Your task to perform on an android device: turn off smart reply in the gmail app Image 0: 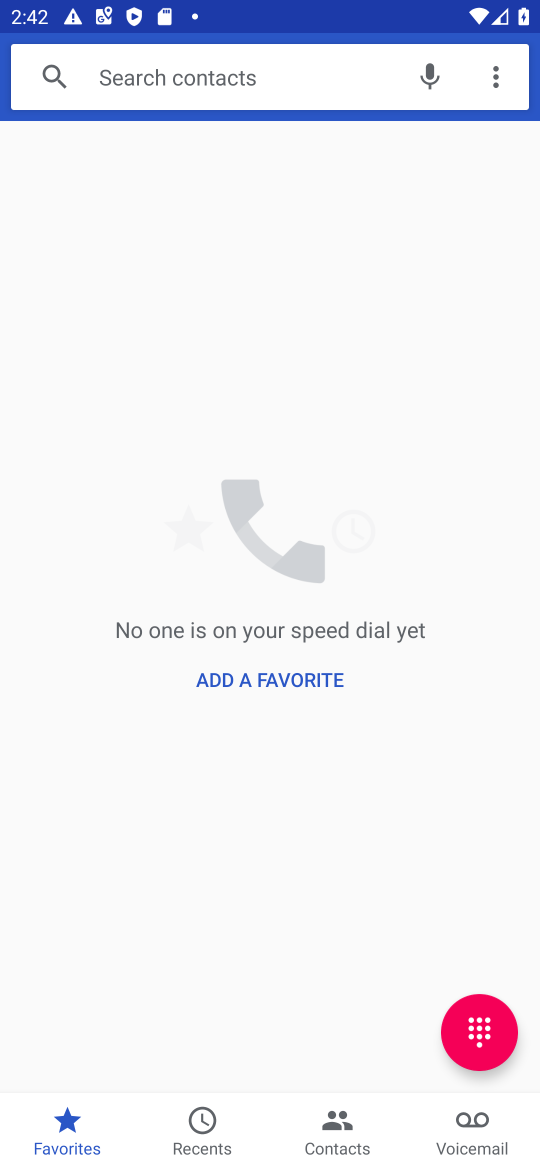
Step 0: press home button
Your task to perform on an android device: turn off smart reply in the gmail app Image 1: 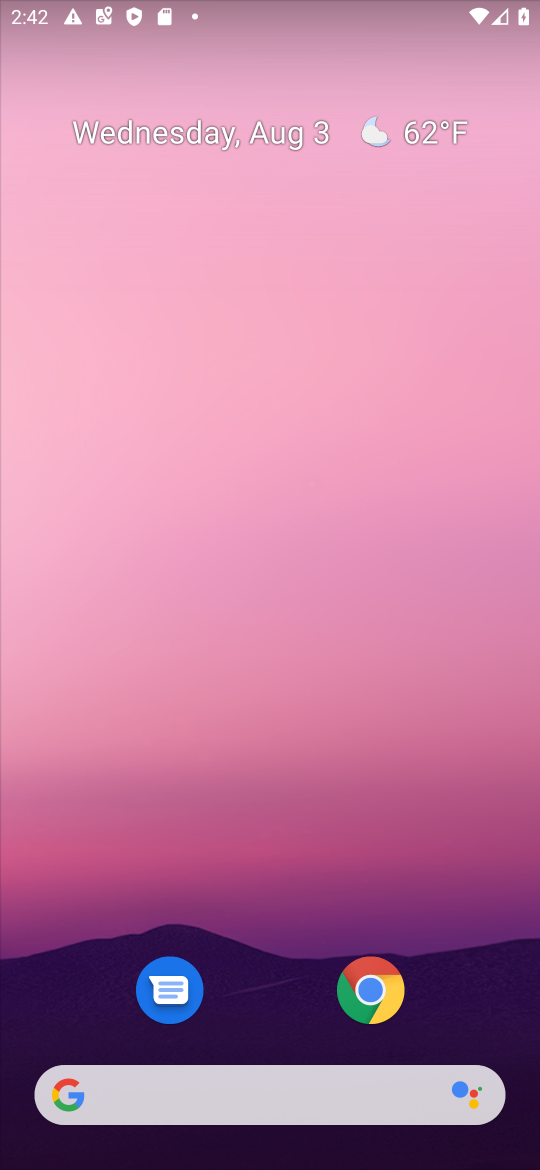
Step 1: drag from (183, 862) to (74, 348)
Your task to perform on an android device: turn off smart reply in the gmail app Image 2: 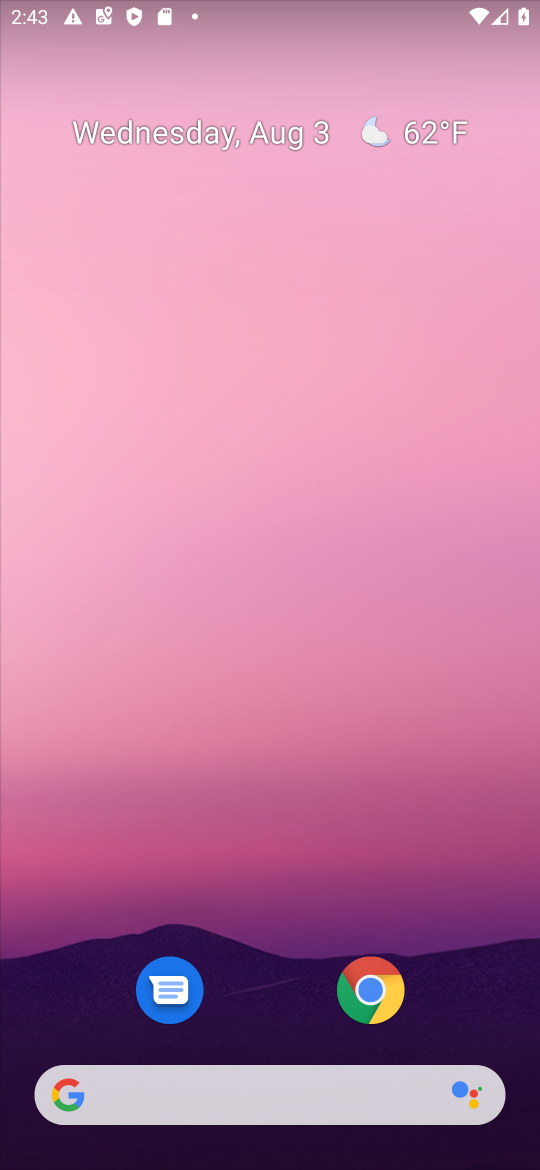
Step 2: drag from (287, 901) to (277, 333)
Your task to perform on an android device: turn off smart reply in the gmail app Image 3: 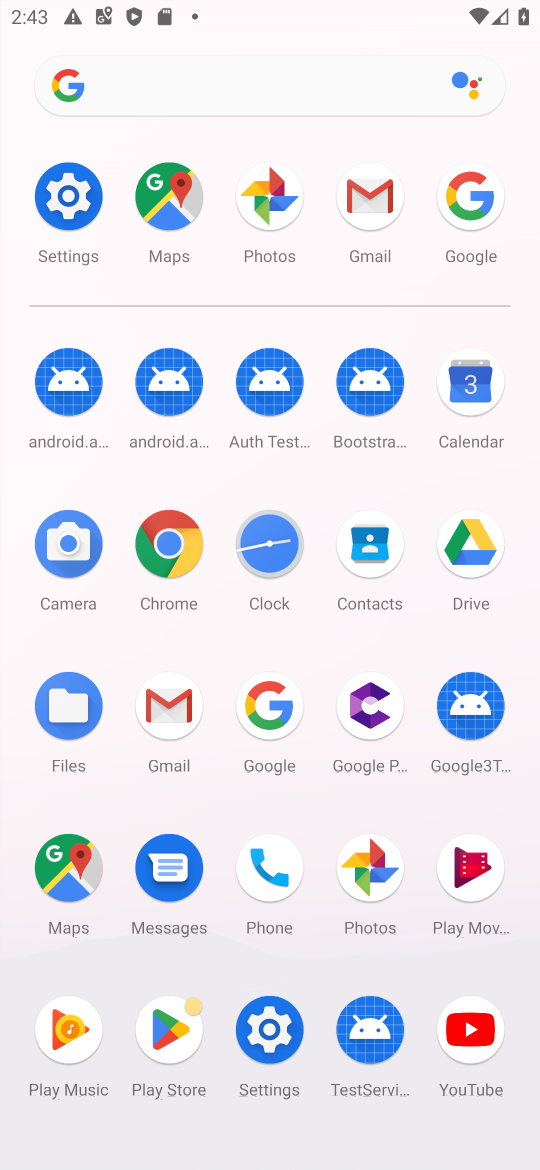
Step 3: click (343, 196)
Your task to perform on an android device: turn off smart reply in the gmail app Image 4: 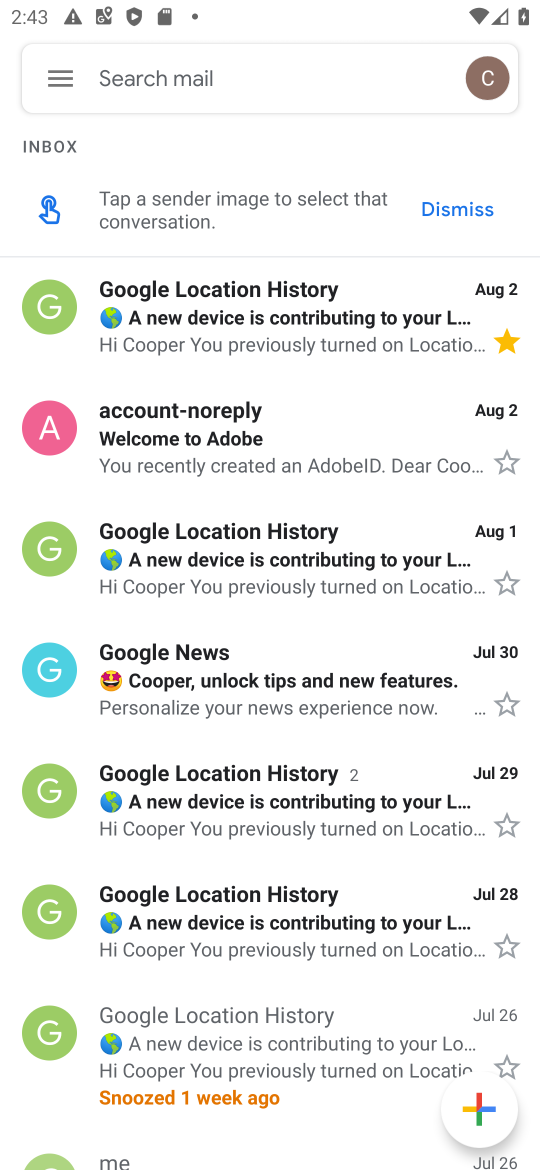
Step 4: click (49, 84)
Your task to perform on an android device: turn off smart reply in the gmail app Image 5: 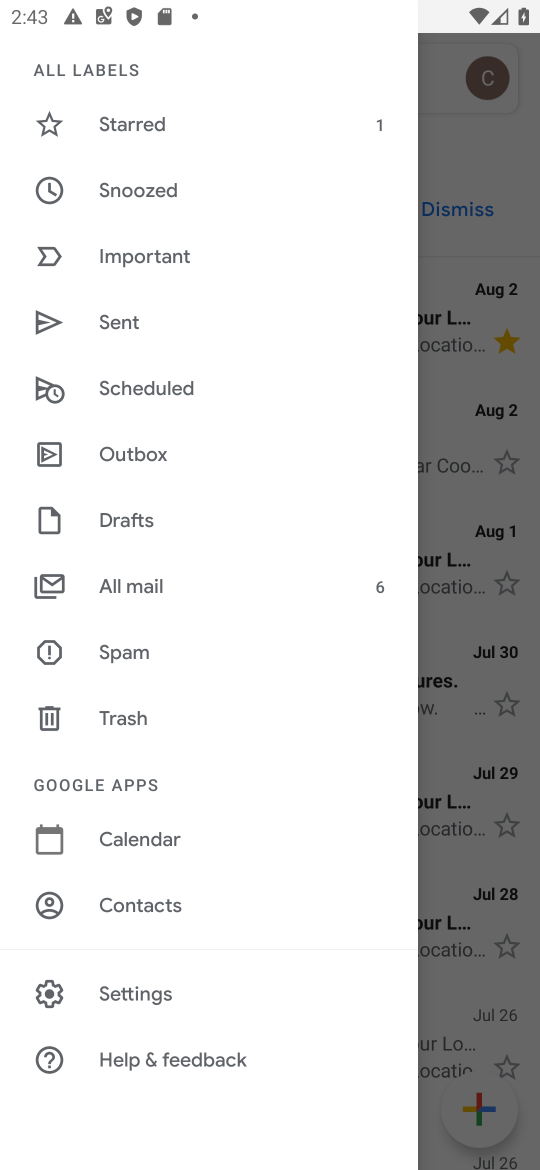
Step 5: click (158, 1002)
Your task to perform on an android device: turn off smart reply in the gmail app Image 6: 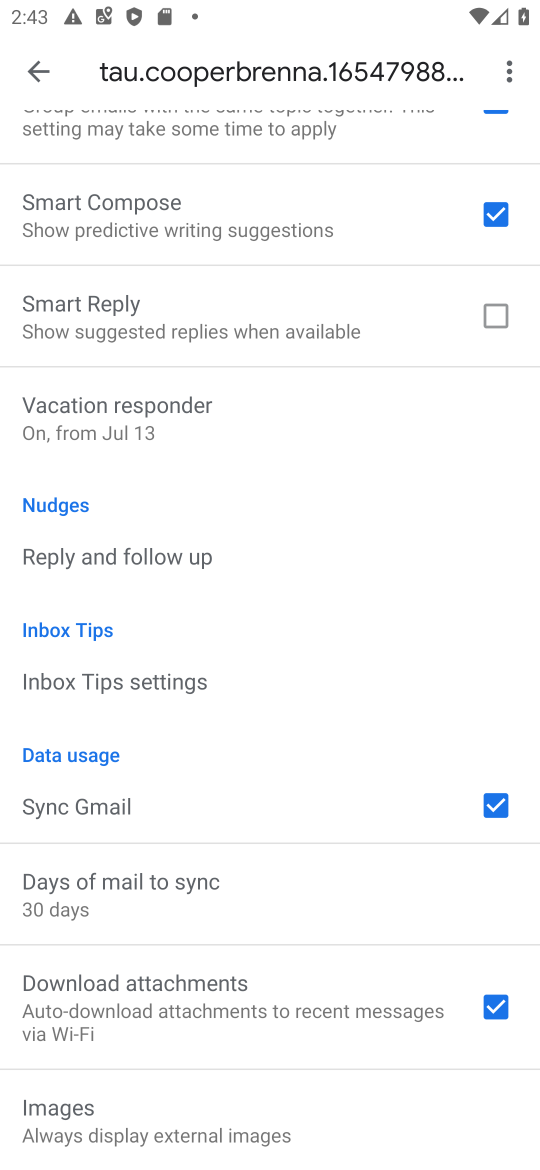
Step 6: task complete